Your task to perform on an android device: Open privacy settings Image 0: 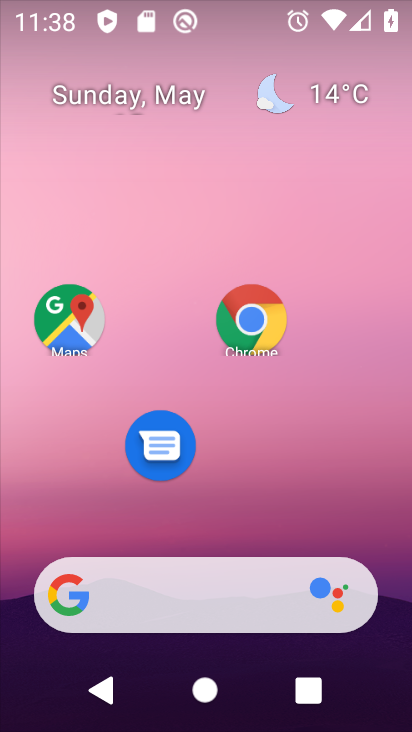
Step 0: press home button
Your task to perform on an android device: Open privacy settings Image 1: 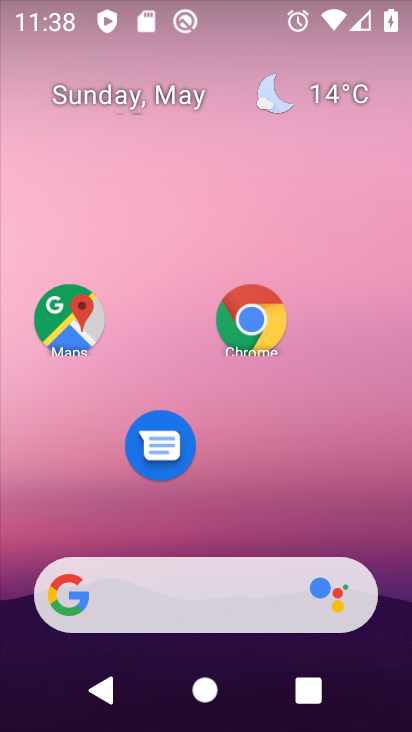
Step 1: click (247, 322)
Your task to perform on an android device: Open privacy settings Image 2: 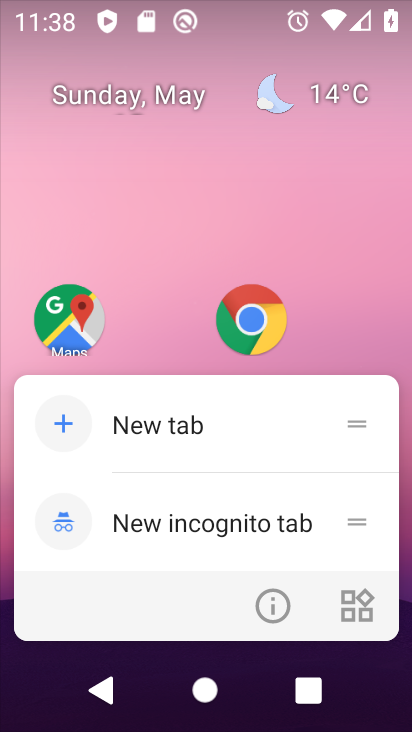
Step 2: click (253, 326)
Your task to perform on an android device: Open privacy settings Image 3: 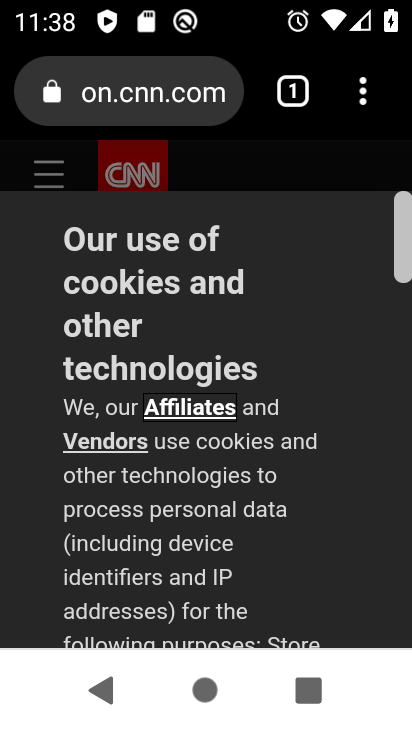
Step 3: drag from (365, 98) to (223, 455)
Your task to perform on an android device: Open privacy settings Image 4: 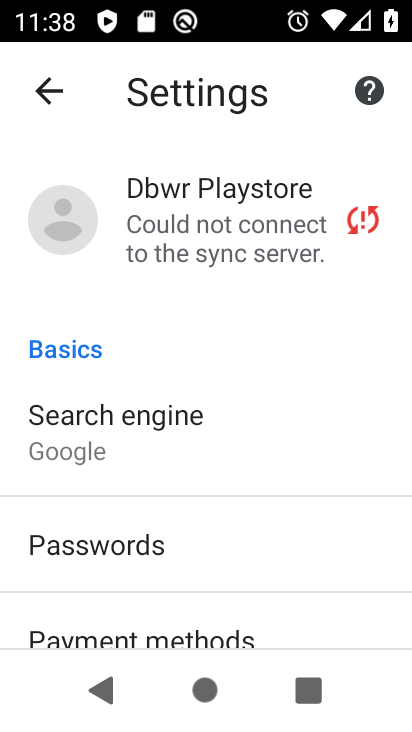
Step 4: drag from (224, 596) to (287, 150)
Your task to perform on an android device: Open privacy settings Image 5: 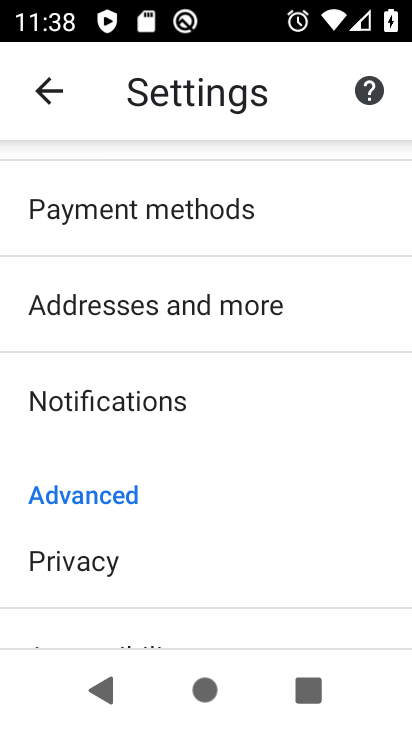
Step 5: click (86, 558)
Your task to perform on an android device: Open privacy settings Image 6: 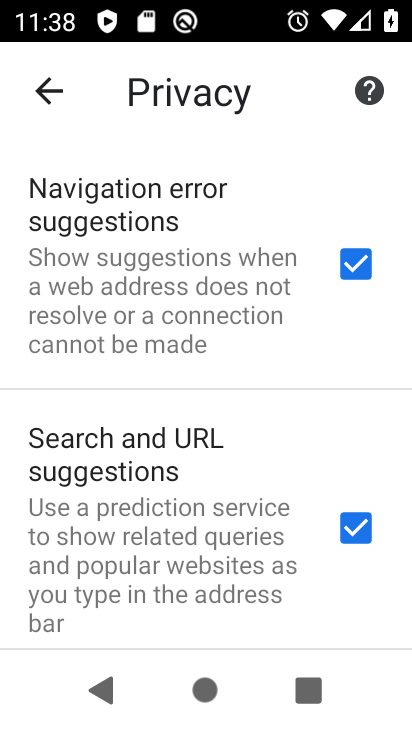
Step 6: task complete